Your task to perform on an android device: change your default location settings in chrome Image 0: 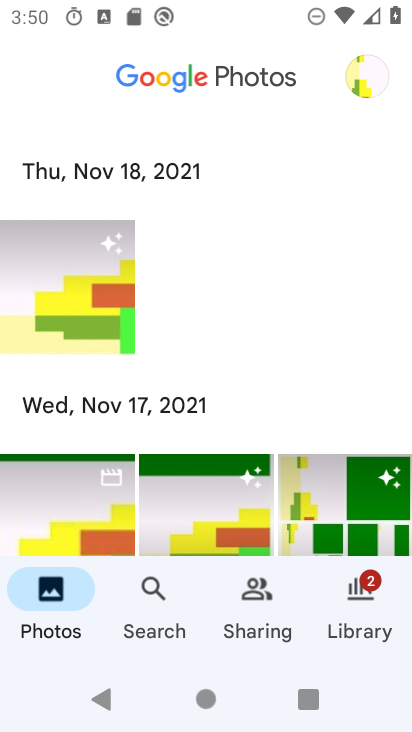
Step 0: press home button
Your task to perform on an android device: change your default location settings in chrome Image 1: 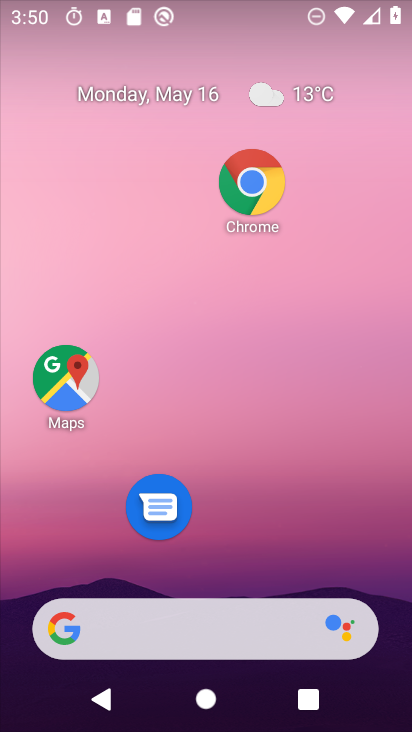
Step 1: drag from (228, 541) to (164, 98)
Your task to perform on an android device: change your default location settings in chrome Image 2: 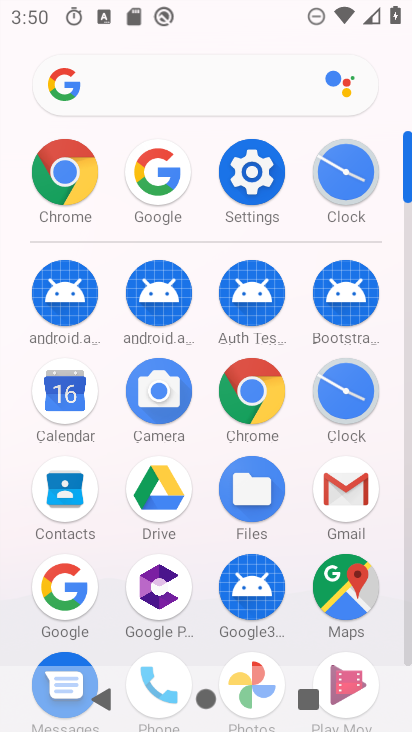
Step 2: click (232, 417)
Your task to perform on an android device: change your default location settings in chrome Image 3: 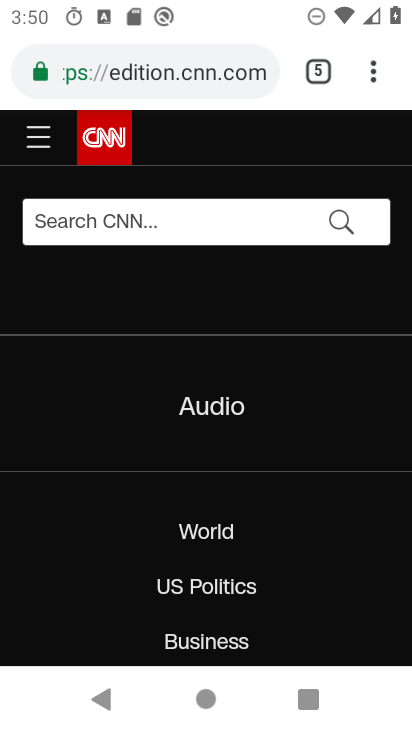
Step 3: click (376, 79)
Your task to perform on an android device: change your default location settings in chrome Image 4: 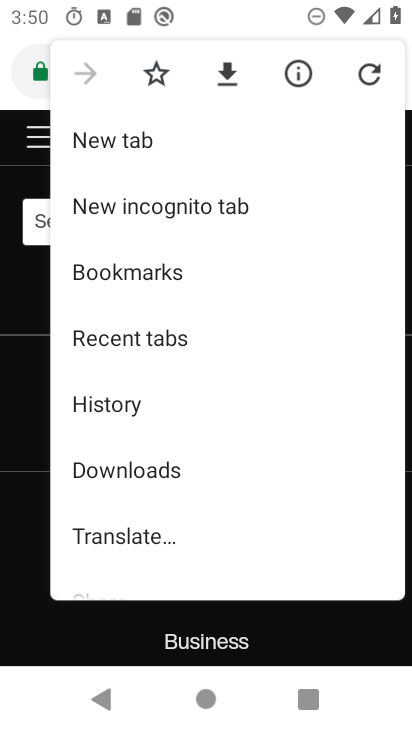
Step 4: drag from (179, 445) to (197, 160)
Your task to perform on an android device: change your default location settings in chrome Image 5: 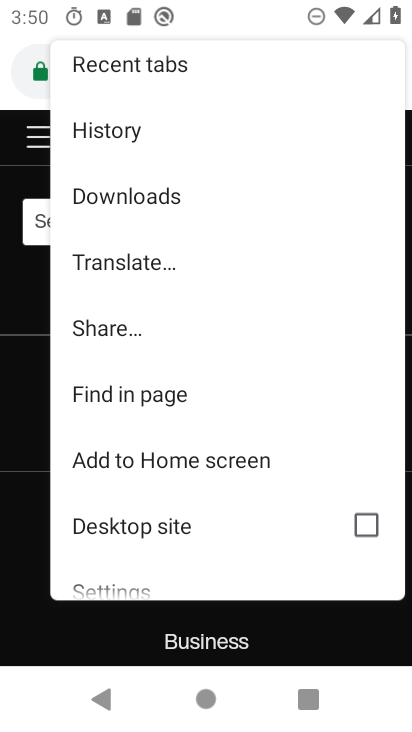
Step 5: drag from (205, 491) to (226, 262)
Your task to perform on an android device: change your default location settings in chrome Image 6: 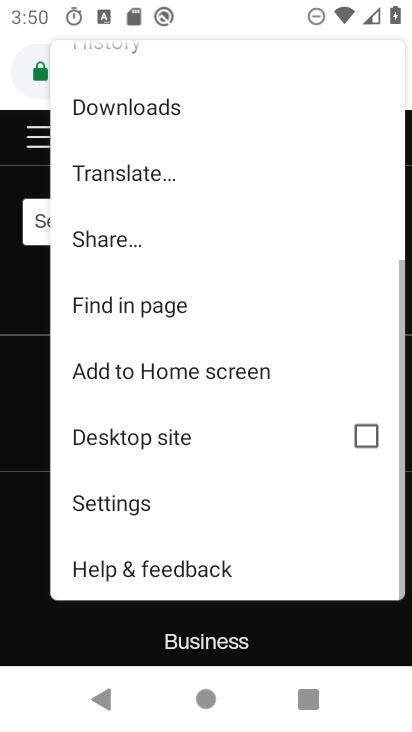
Step 6: click (165, 517)
Your task to perform on an android device: change your default location settings in chrome Image 7: 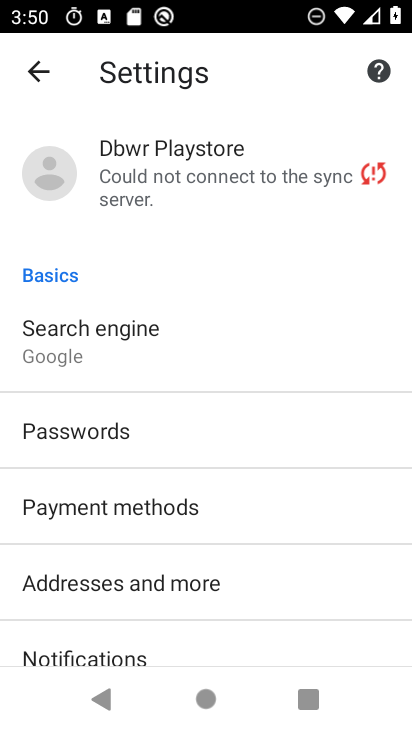
Step 7: drag from (157, 566) to (177, 342)
Your task to perform on an android device: change your default location settings in chrome Image 8: 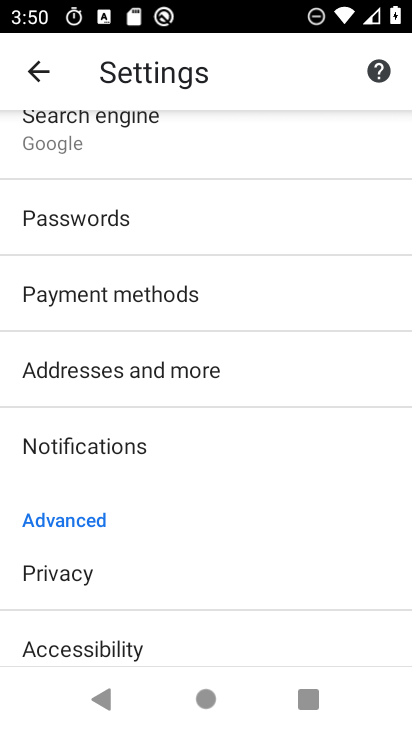
Step 8: drag from (195, 586) to (217, 409)
Your task to perform on an android device: change your default location settings in chrome Image 9: 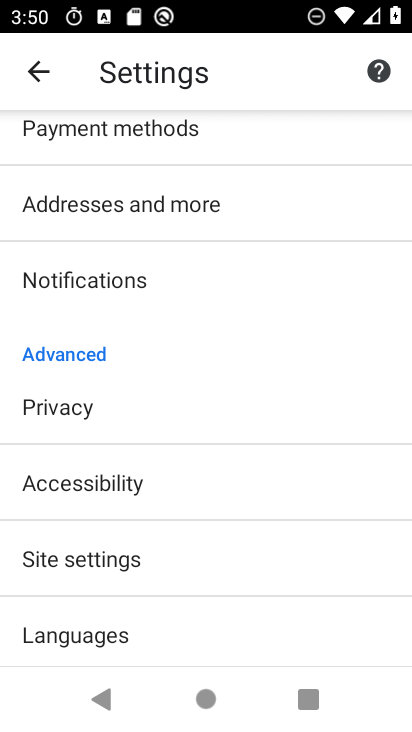
Step 9: click (178, 562)
Your task to perform on an android device: change your default location settings in chrome Image 10: 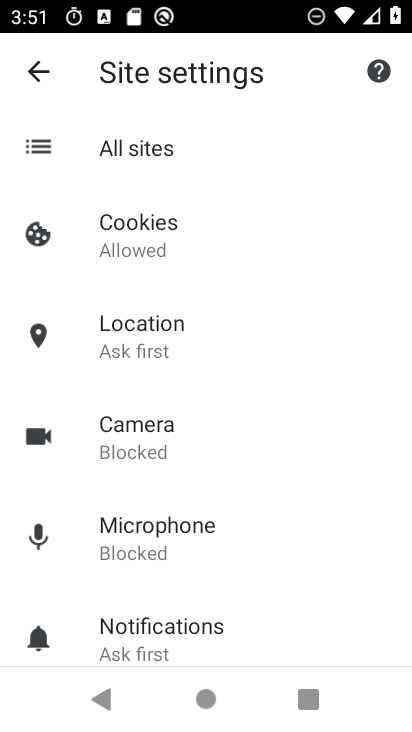
Step 10: drag from (239, 598) to (237, 632)
Your task to perform on an android device: change your default location settings in chrome Image 11: 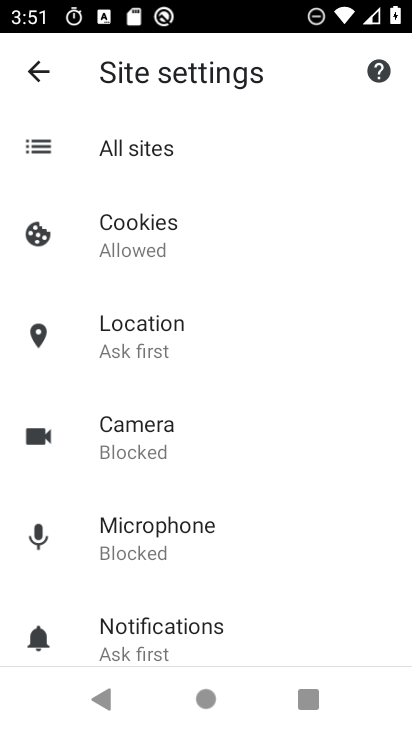
Step 11: click (173, 343)
Your task to perform on an android device: change your default location settings in chrome Image 12: 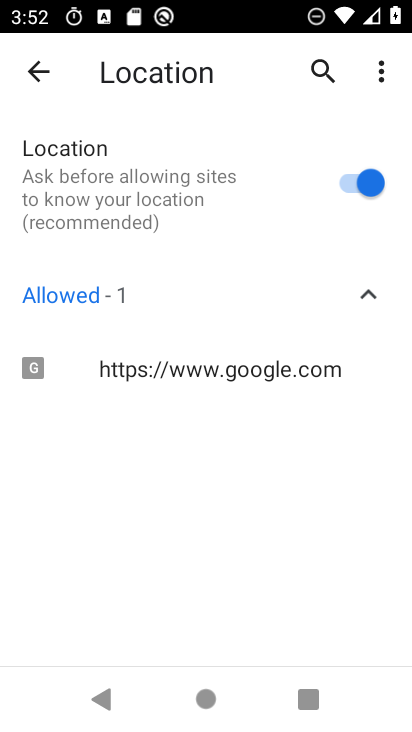
Step 12: task complete